Your task to perform on an android device: Go to location settings Image 0: 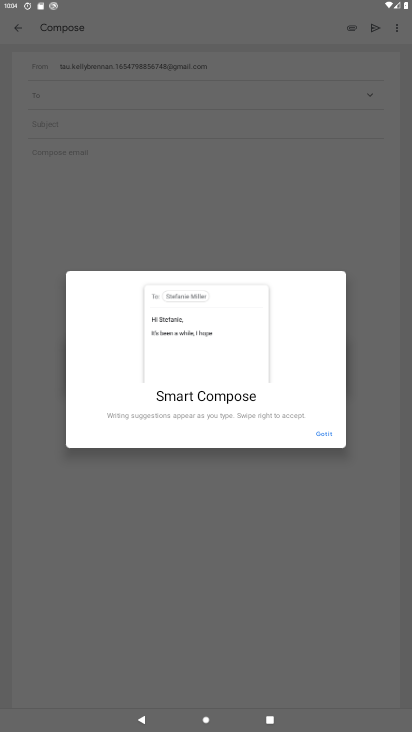
Step 0: press home button
Your task to perform on an android device: Go to location settings Image 1: 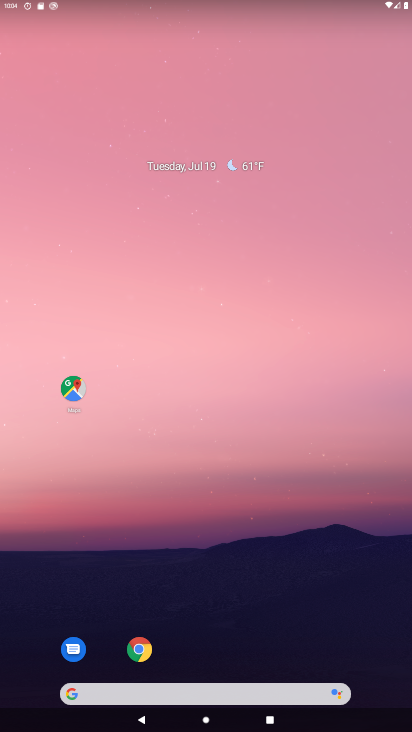
Step 1: drag from (330, 597) to (219, 12)
Your task to perform on an android device: Go to location settings Image 2: 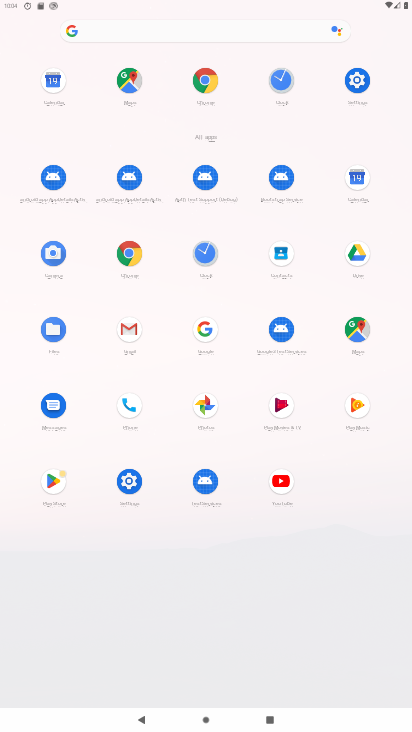
Step 2: click (358, 84)
Your task to perform on an android device: Go to location settings Image 3: 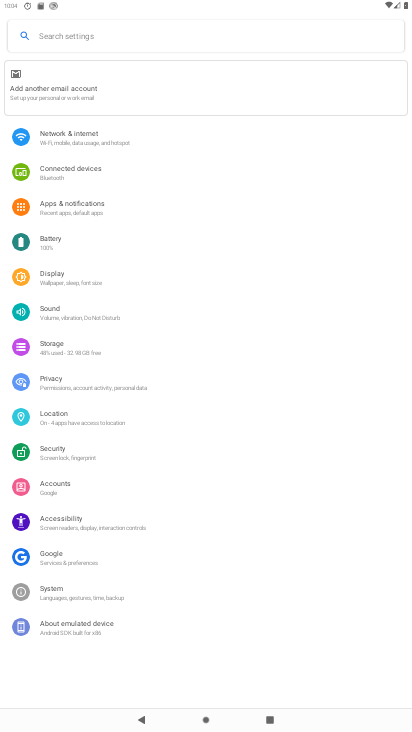
Step 3: click (72, 417)
Your task to perform on an android device: Go to location settings Image 4: 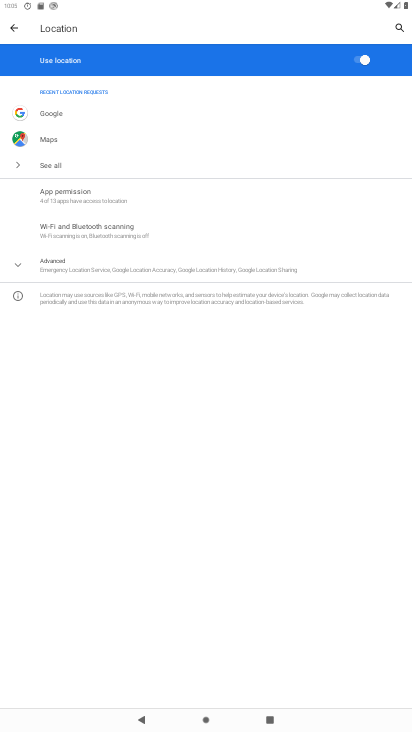
Step 4: task complete